Your task to perform on an android device: toggle show notifications on the lock screen Image 0: 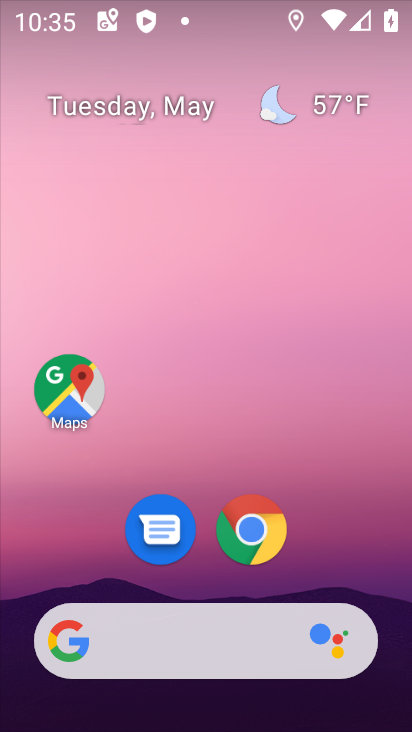
Step 0: drag from (200, 574) to (251, 58)
Your task to perform on an android device: toggle show notifications on the lock screen Image 1: 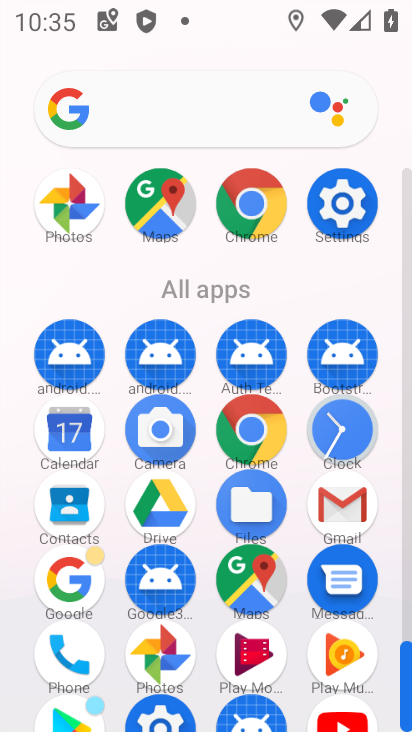
Step 1: click (353, 228)
Your task to perform on an android device: toggle show notifications on the lock screen Image 2: 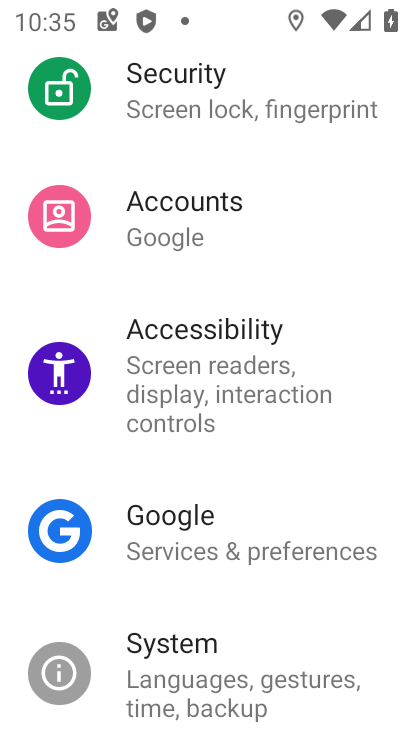
Step 2: drag from (159, 164) to (167, 676)
Your task to perform on an android device: toggle show notifications on the lock screen Image 3: 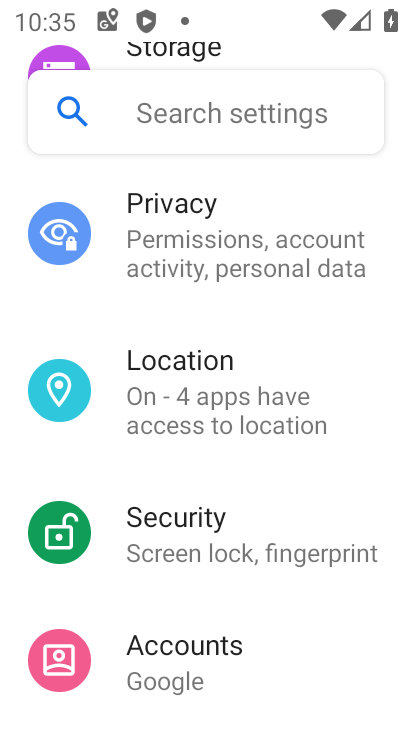
Step 3: drag from (200, 269) to (263, 569)
Your task to perform on an android device: toggle show notifications on the lock screen Image 4: 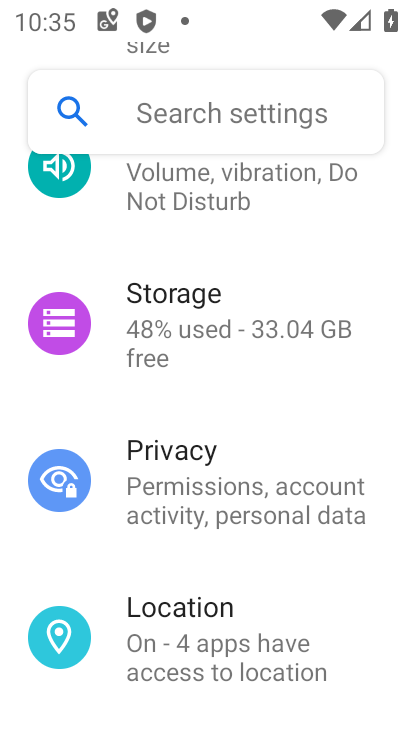
Step 4: drag from (233, 245) to (265, 575)
Your task to perform on an android device: toggle show notifications on the lock screen Image 5: 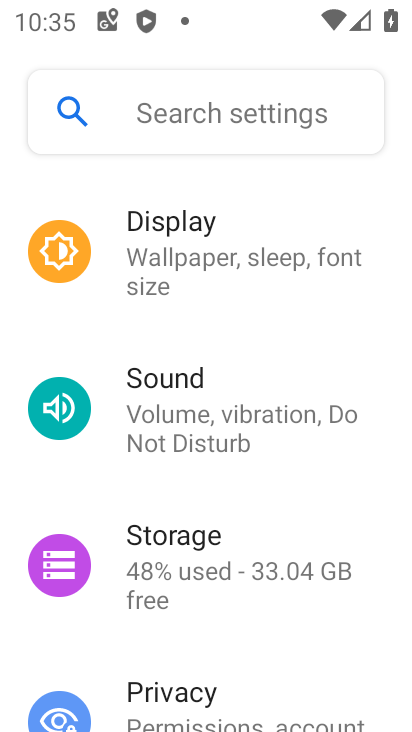
Step 5: drag from (165, 318) to (178, 703)
Your task to perform on an android device: toggle show notifications on the lock screen Image 6: 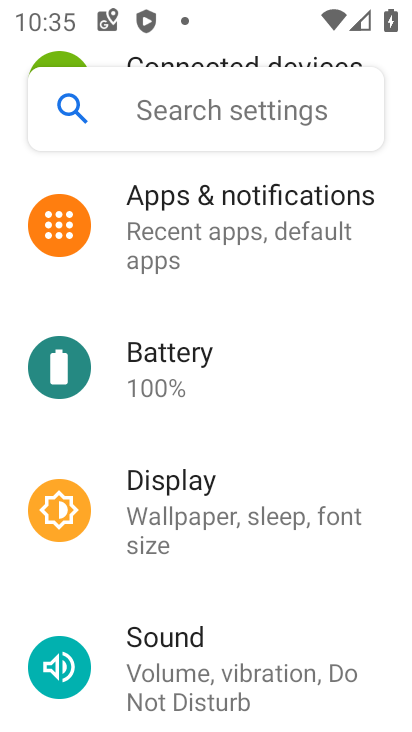
Step 6: click (291, 242)
Your task to perform on an android device: toggle show notifications on the lock screen Image 7: 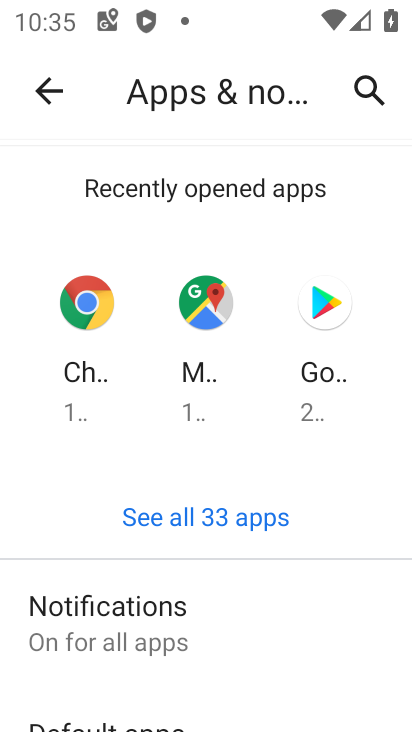
Step 7: drag from (227, 648) to (206, 143)
Your task to perform on an android device: toggle show notifications on the lock screen Image 8: 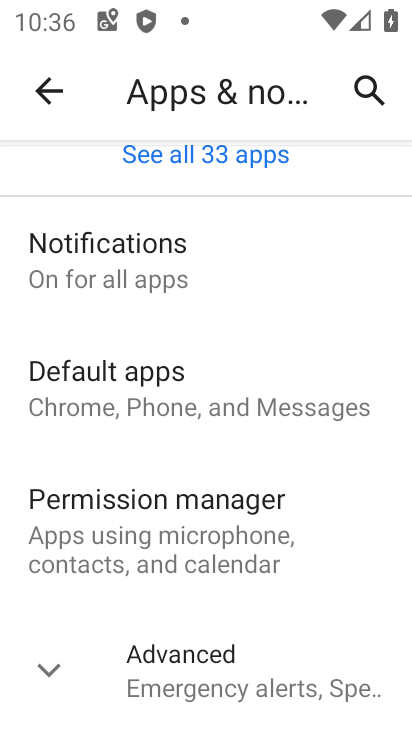
Step 8: click (164, 278)
Your task to perform on an android device: toggle show notifications on the lock screen Image 9: 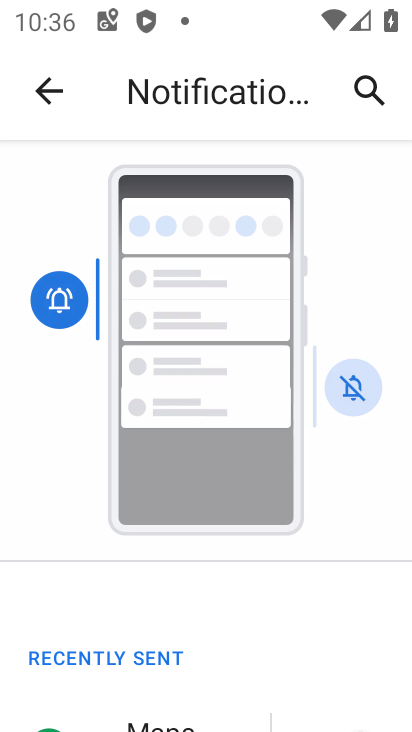
Step 9: drag from (255, 616) to (257, 161)
Your task to perform on an android device: toggle show notifications on the lock screen Image 10: 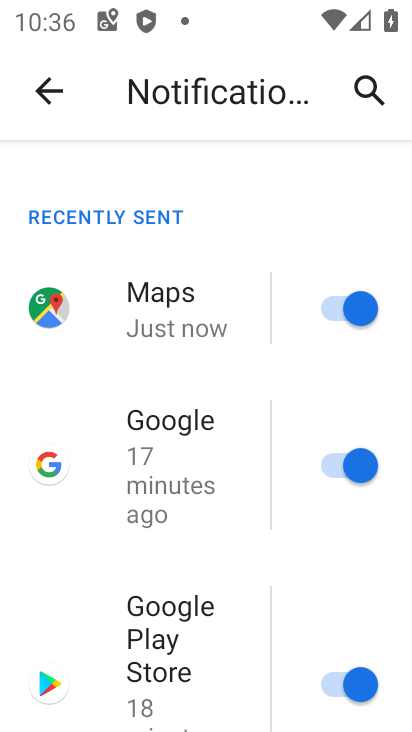
Step 10: drag from (204, 599) to (225, 340)
Your task to perform on an android device: toggle show notifications on the lock screen Image 11: 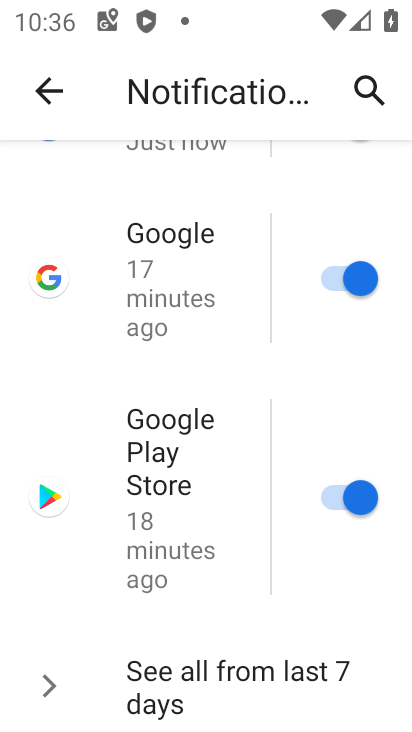
Step 11: drag from (239, 615) to (207, 319)
Your task to perform on an android device: toggle show notifications on the lock screen Image 12: 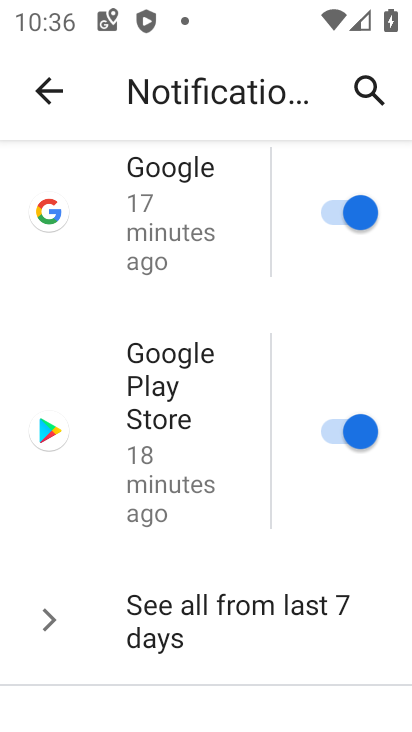
Step 12: drag from (229, 609) to (280, 179)
Your task to perform on an android device: toggle show notifications on the lock screen Image 13: 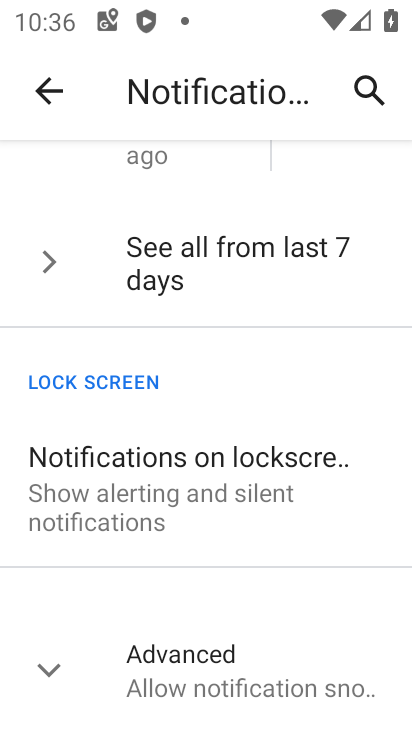
Step 13: click (229, 430)
Your task to perform on an android device: toggle show notifications on the lock screen Image 14: 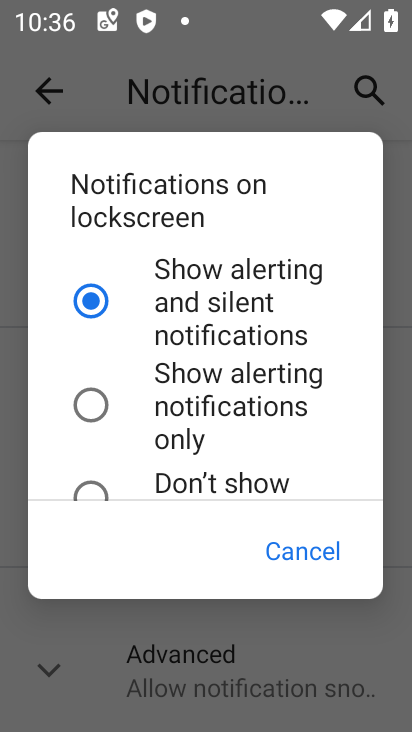
Step 14: task complete